Your task to perform on an android device: turn off picture-in-picture Image 0: 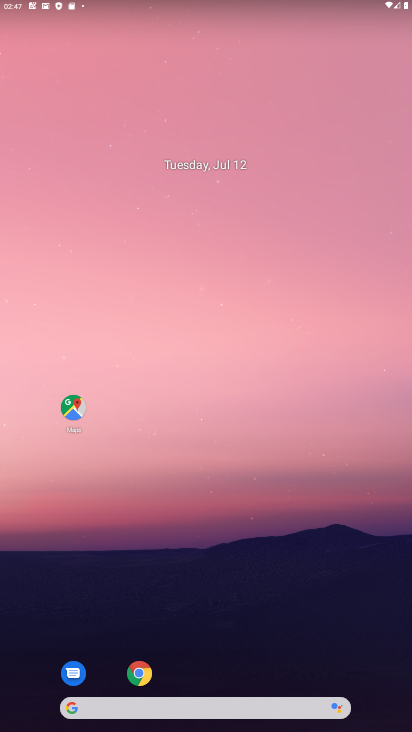
Step 0: press home button
Your task to perform on an android device: turn off picture-in-picture Image 1: 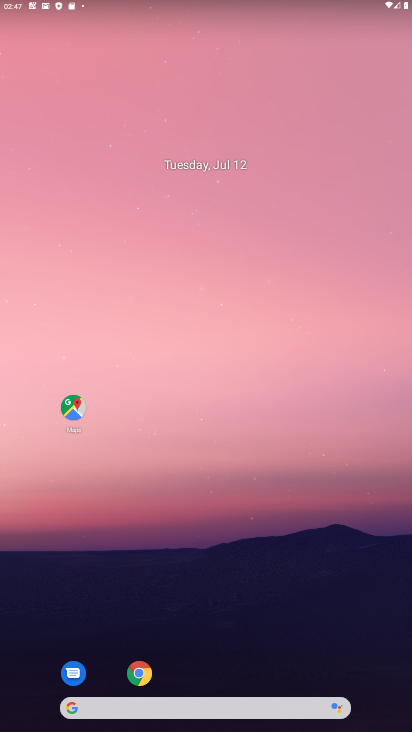
Step 1: click (314, 639)
Your task to perform on an android device: turn off picture-in-picture Image 2: 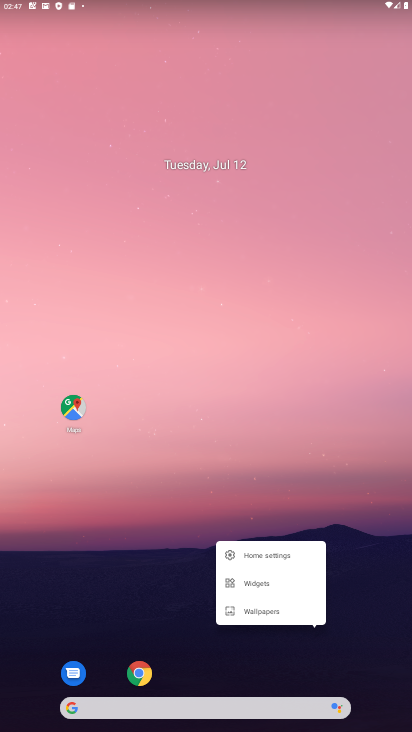
Step 2: drag from (147, 669) to (230, 668)
Your task to perform on an android device: turn off picture-in-picture Image 3: 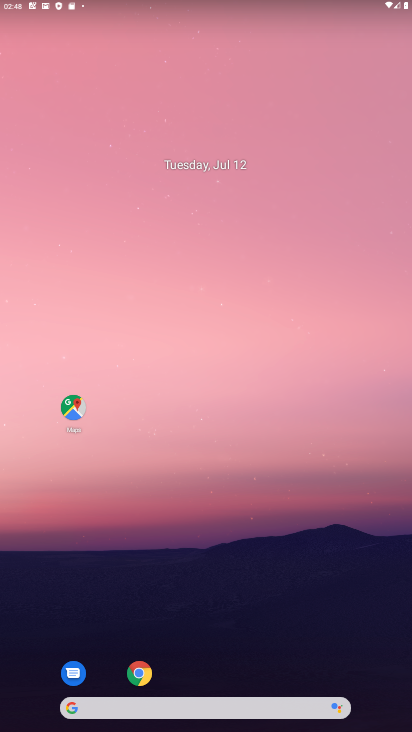
Step 3: click (146, 674)
Your task to perform on an android device: turn off picture-in-picture Image 4: 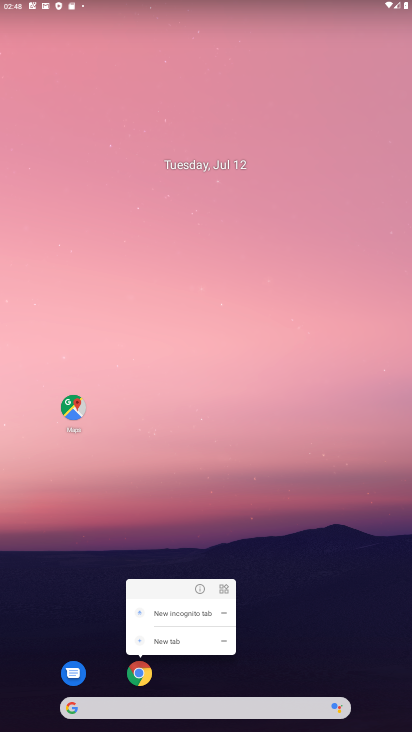
Step 4: click (199, 586)
Your task to perform on an android device: turn off picture-in-picture Image 5: 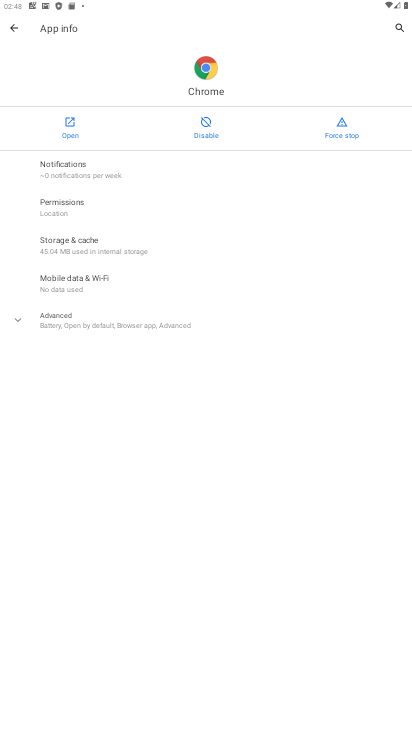
Step 5: click (23, 316)
Your task to perform on an android device: turn off picture-in-picture Image 6: 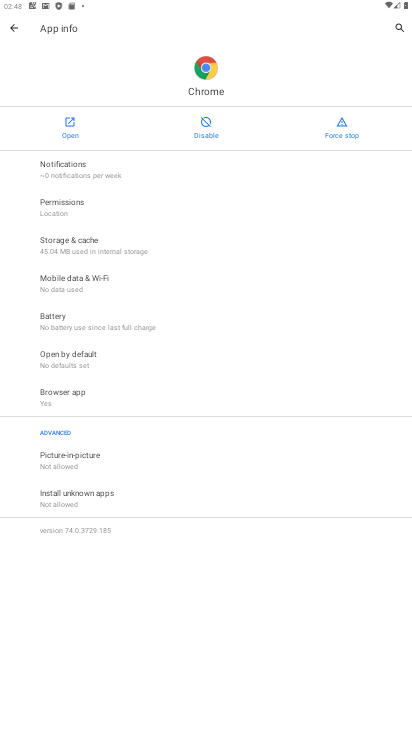
Step 6: click (81, 454)
Your task to perform on an android device: turn off picture-in-picture Image 7: 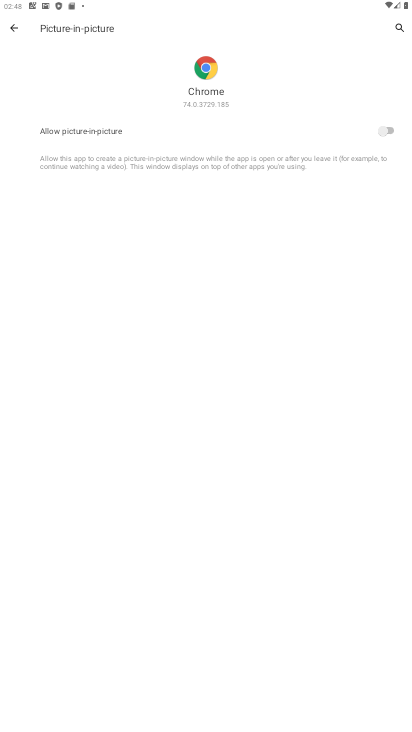
Step 7: task complete